Your task to perform on an android device: Open Google Image 0: 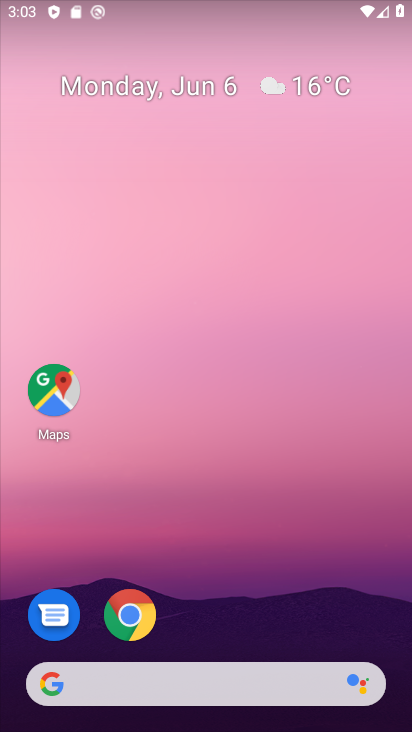
Step 0: drag from (269, 633) to (272, 271)
Your task to perform on an android device: Open Google Image 1: 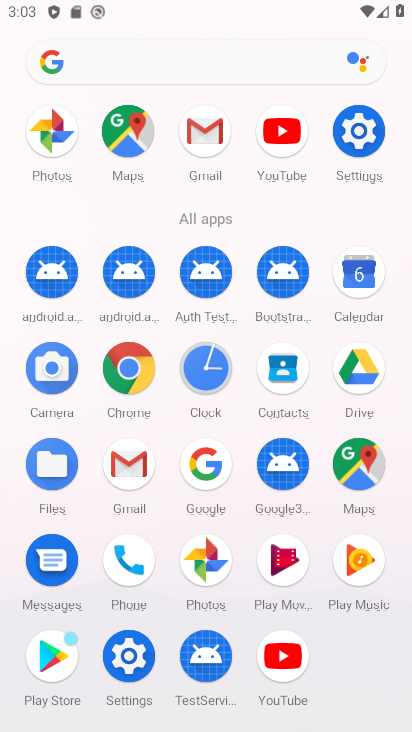
Step 1: click (198, 465)
Your task to perform on an android device: Open Google Image 2: 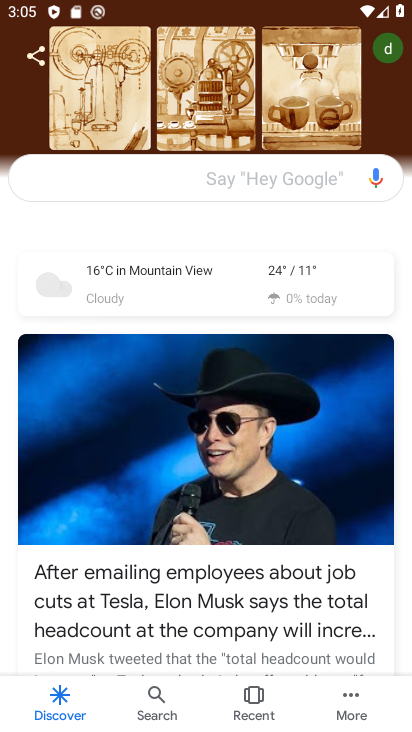
Step 2: task complete